Your task to perform on an android device: Do I have any events today? Image 0: 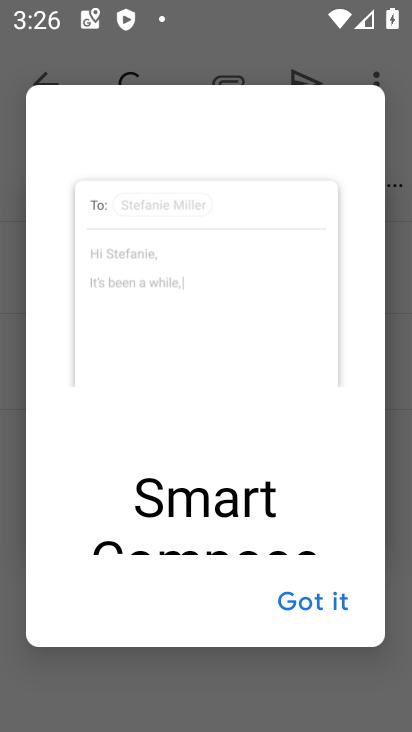
Step 0: press home button
Your task to perform on an android device: Do I have any events today? Image 1: 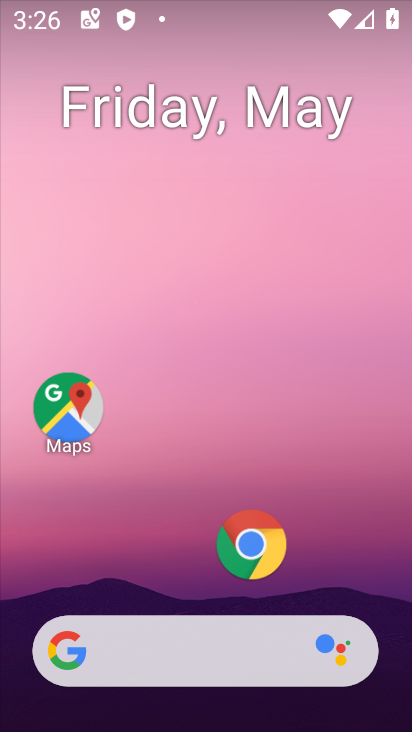
Step 1: drag from (181, 585) to (239, 229)
Your task to perform on an android device: Do I have any events today? Image 2: 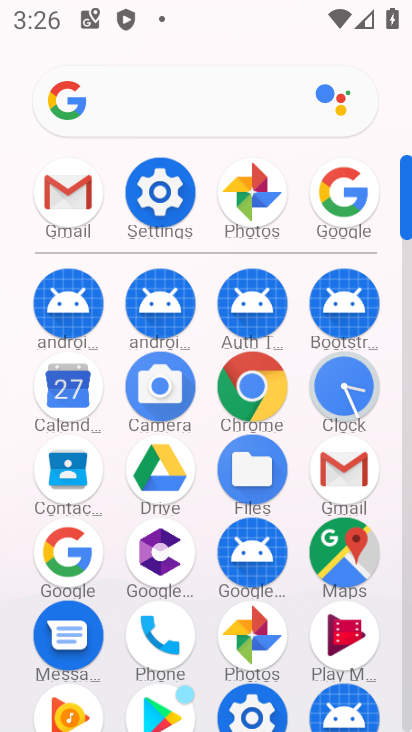
Step 2: click (59, 393)
Your task to perform on an android device: Do I have any events today? Image 3: 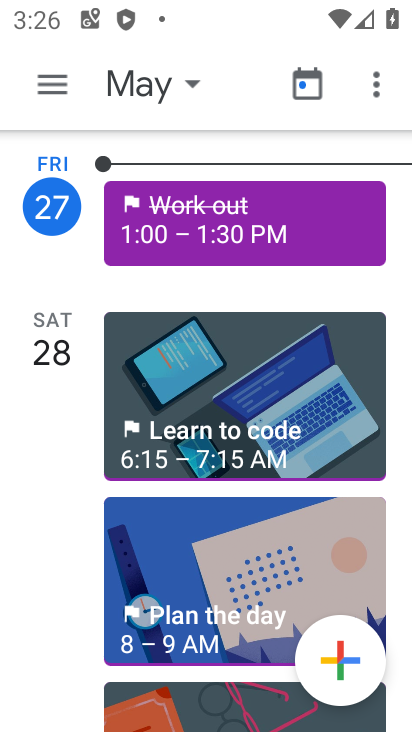
Step 3: click (179, 95)
Your task to perform on an android device: Do I have any events today? Image 4: 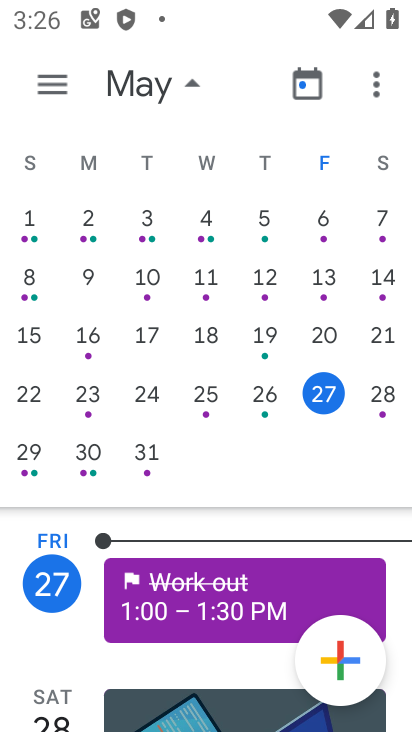
Step 4: click (317, 400)
Your task to perform on an android device: Do I have any events today? Image 5: 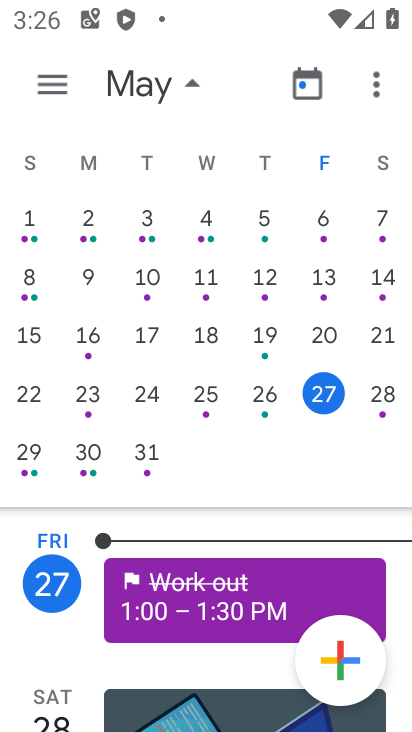
Step 5: click (317, 400)
Your task to perform on an android device: Do I have any events today? Image 6: 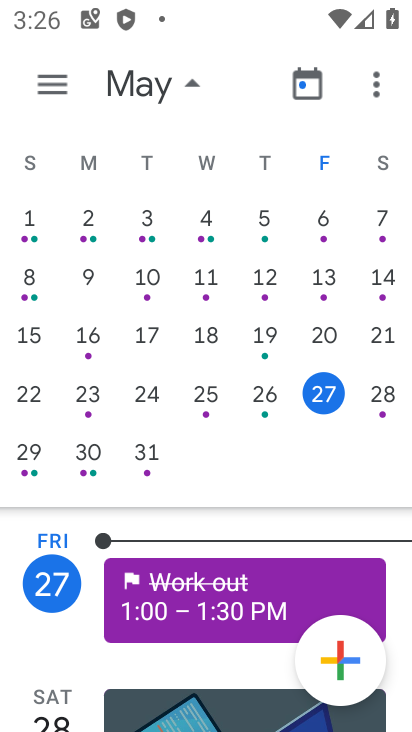
Step 6: task complete